Your task to perform on an android device: set an alarm Image 0: 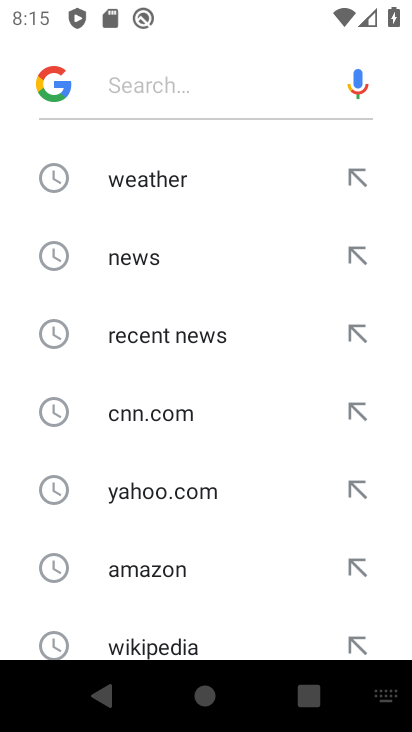
Step 0: press back button
Your task to perform on an android device: set an alarm Image 1: 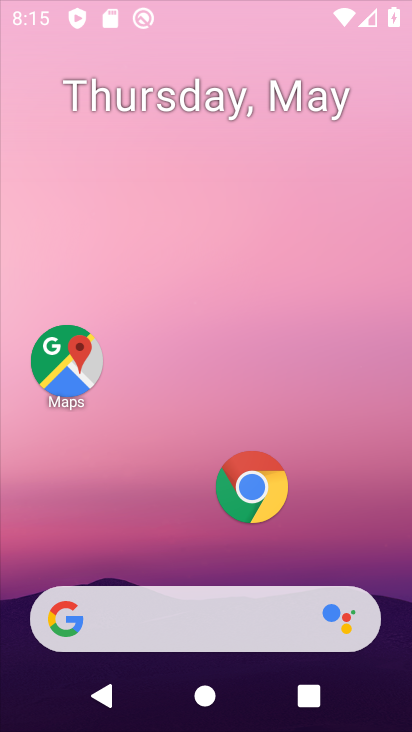
Step 1: drag from (249, 437) to (176, 183)
Your task to perform on an android device: set an alarm Image 2: 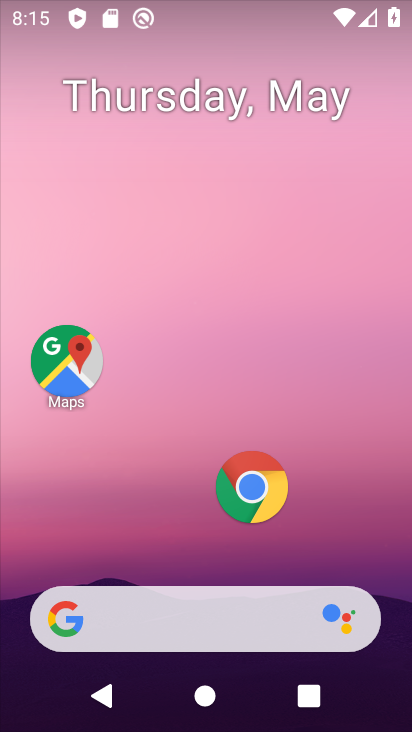
Step 2: drag from (240, 418) to (178, 55)
Your task to perform on an android device: set an alarm Image 3: 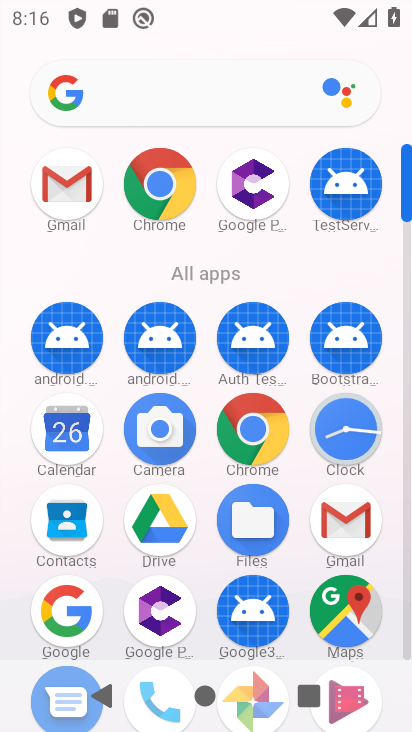
Step 3: click (344, 439)
Your task to perform on an android device: set an alarm Image 4: 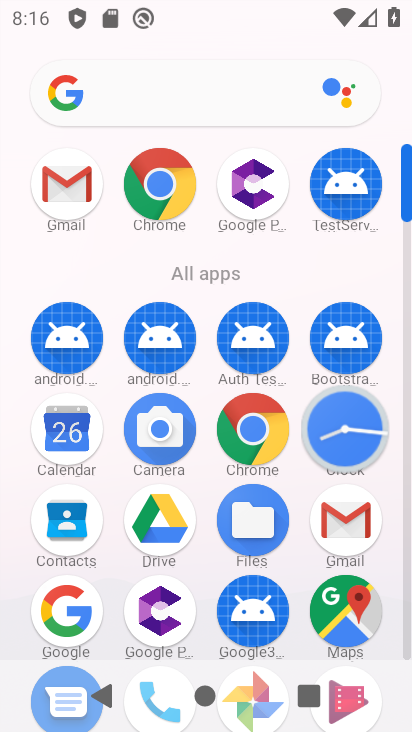
Step 4: click (344, 439)
Your task to perform on an android device: set an alarm Image 5: 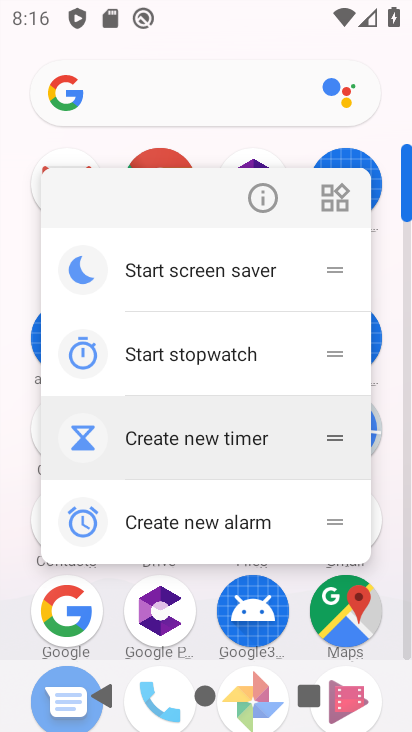
Step 5: click (344, 439)
Your task to perform on an android device: set an alarm Image 6: 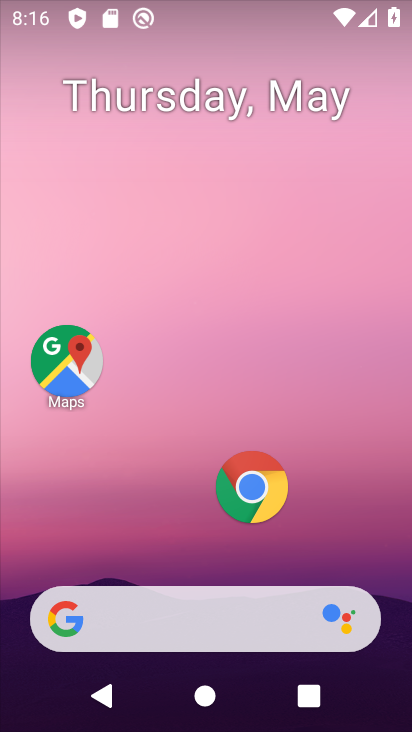
Step 6: drag from (261, 657) to (172, 59)
Your task to perform on an android device: set an alarm Image 7: 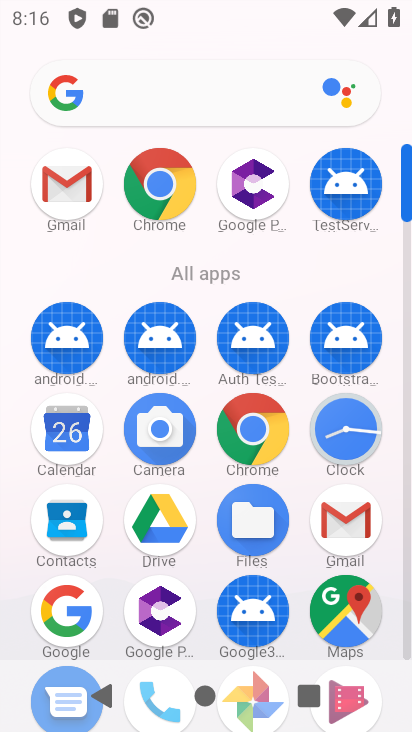
Step 7: click (329, 429)
Your task to perform on an android device: set an alarm Image 8: 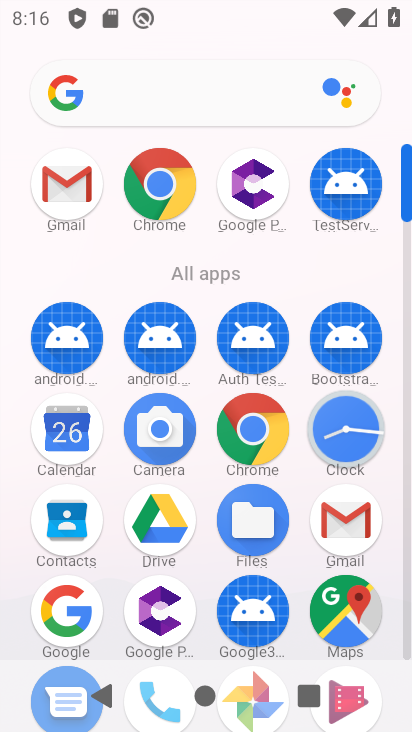
Step 8: click (329, 429)
Your task to perform on an android device: set an alarm Image 9: 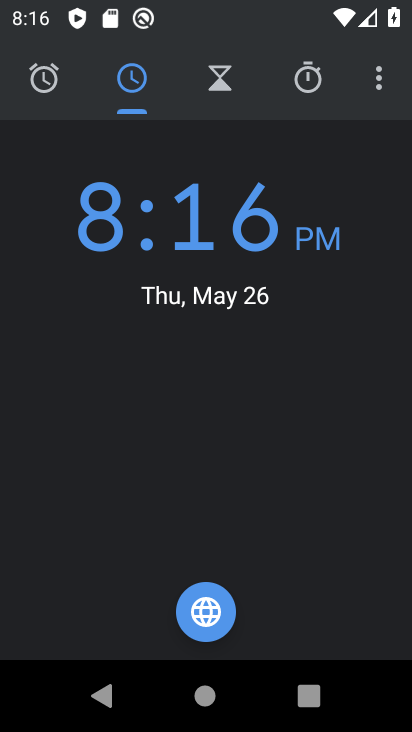
Step 9: click (42, 80)
Your task to perform on an android device: set an alarm Image 10: 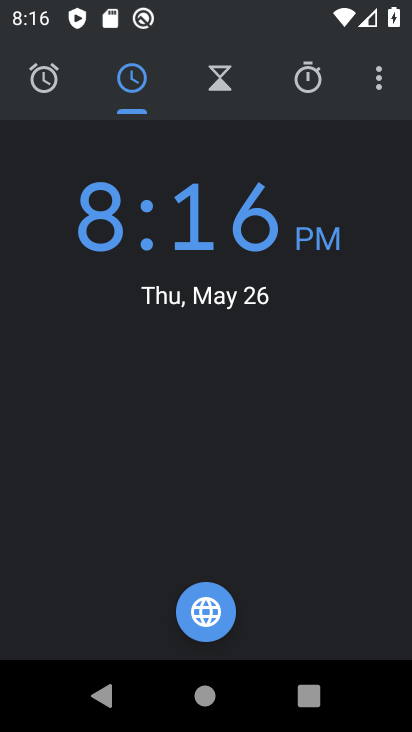
Step 10: click (42, 80)
Your task to perform on an android device: set an alarm Image 11: 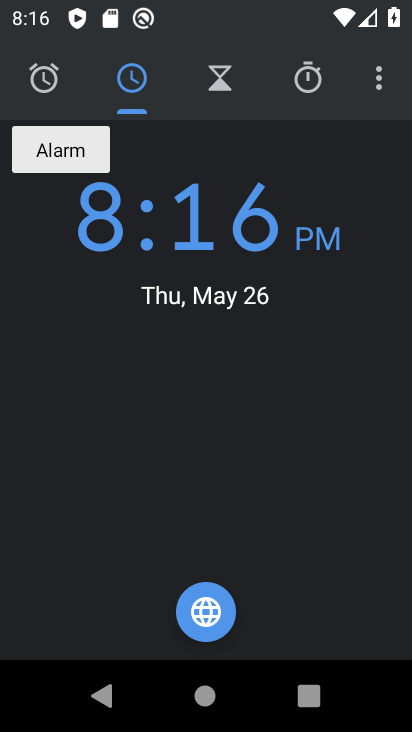
Step 11: click (42, 80)
Your task to perform on an android device: set an alarm Image 12: 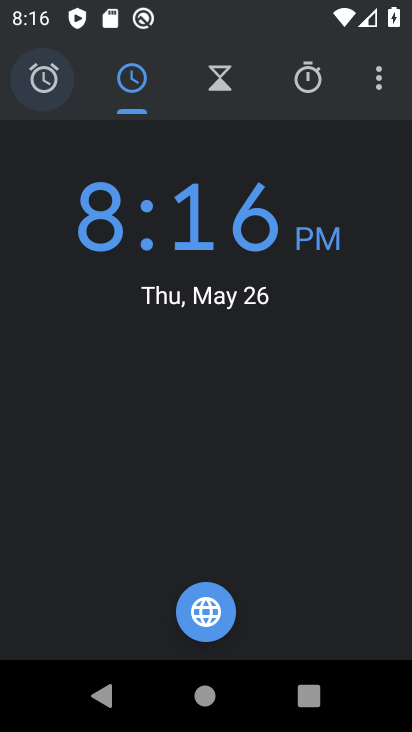
Step 12: click (42, 80)
Your task to perform on an android device: set an alarm Image 13: 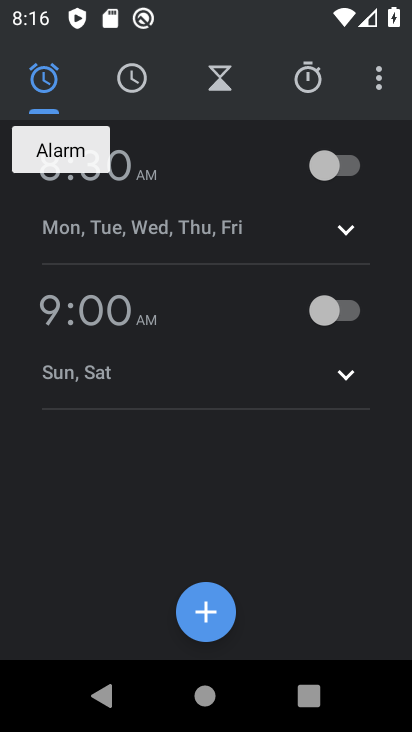
Step 13: click (321, 166)
Your task to perform on an android device: set an alarm Image 14: 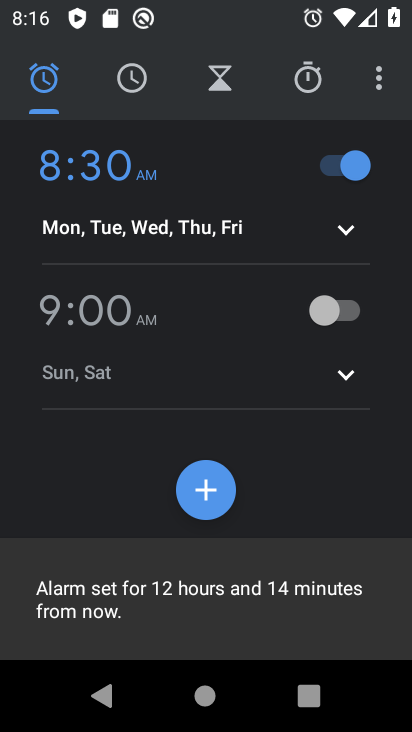
Step 14: task complete